Your task to perform on an android device: Go to Google Image 0: 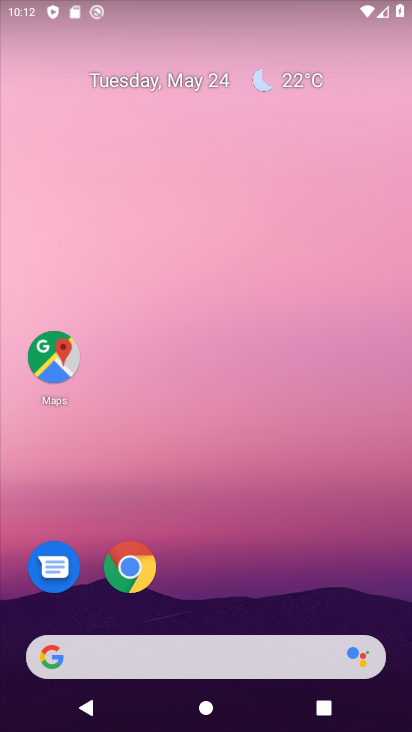
Step 0: drag from (262, 548) to (227, 6)
Your task to perform on an android device: Go to Google Image 1: 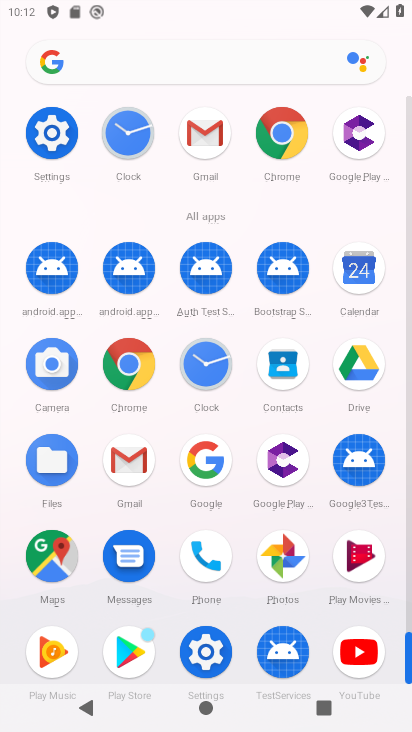
Step 1: click (208, 465)
Your task to perform on an android device: Go to Google Image 2: 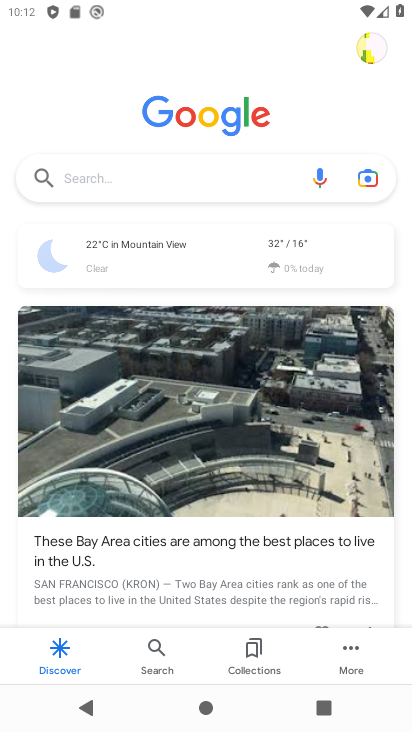
Step 2: task complete